Your task to perform on an android device: Search for the best value 4K TV on Best Buy Image 0: 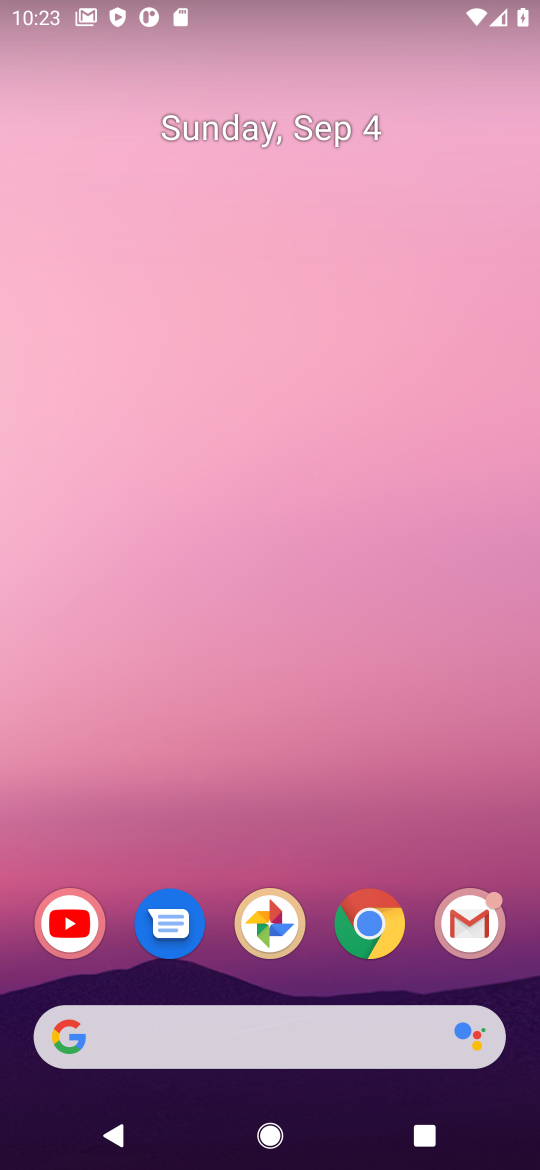
Step 0: click (150, 1017)
Your task to perform on an android device: Search for the best value 4K TV on Best Buy Image 1: 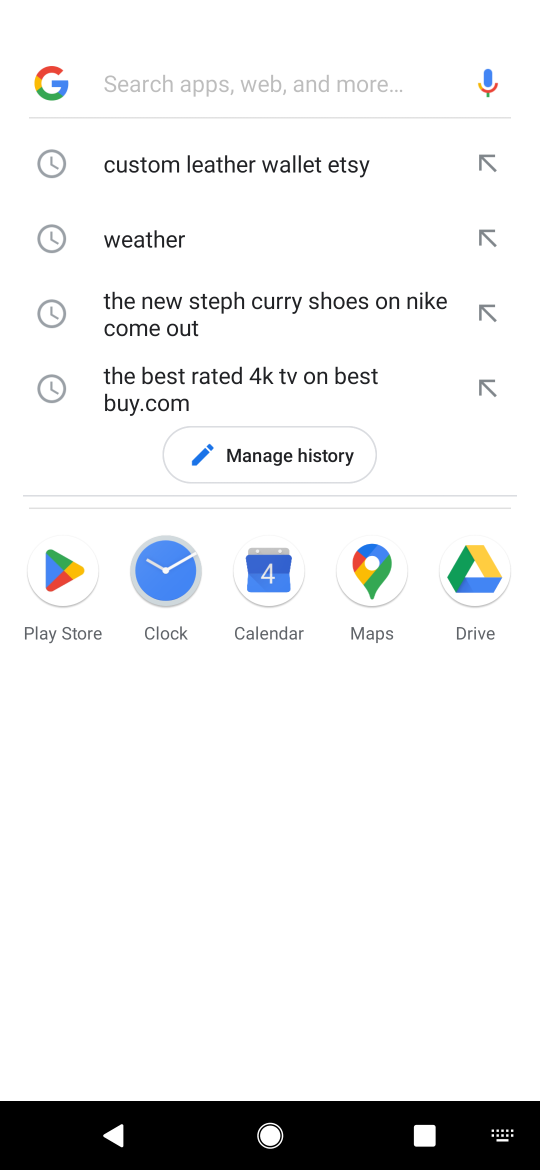
Step 1: type "the best value 4K TV on Best Buy"
Your task to perform on an android device: Search for the best value 4K TV on Best Buy Image 2: 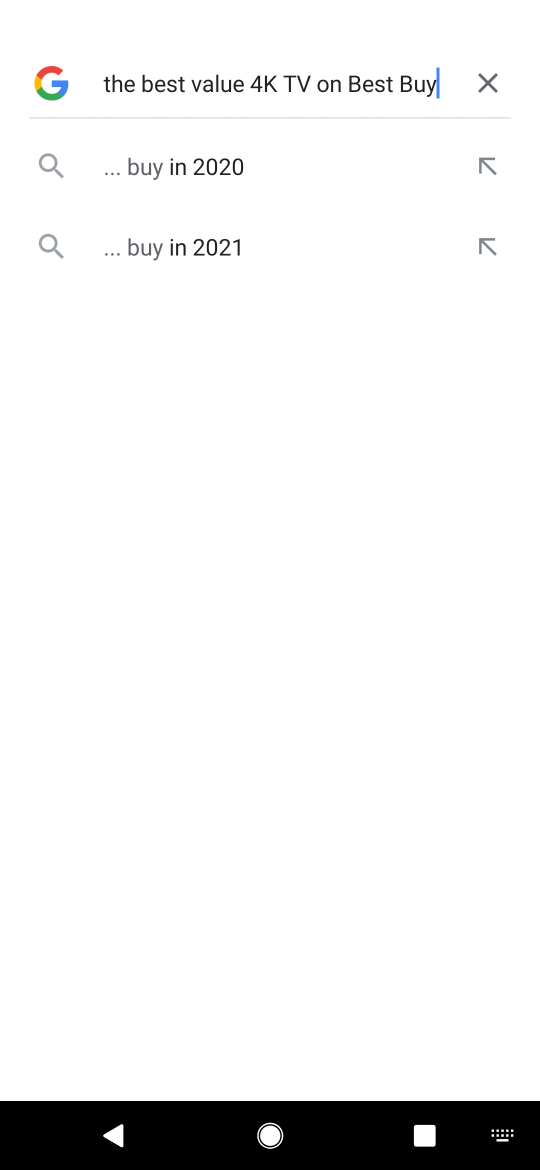
Step 2: type ""
Your task to perform on an android device: Search for the best value 4K TV on Best Buy Image 3: 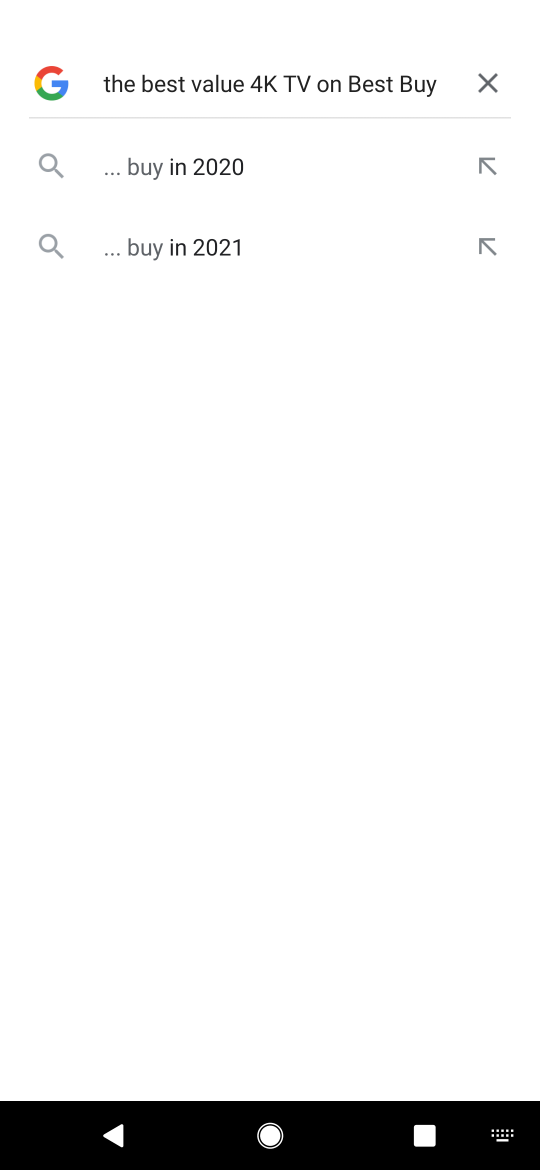
Step 3: type ""
Your task to perform on an android device: Search for the best value 4K TV on Best Buy Image 4: 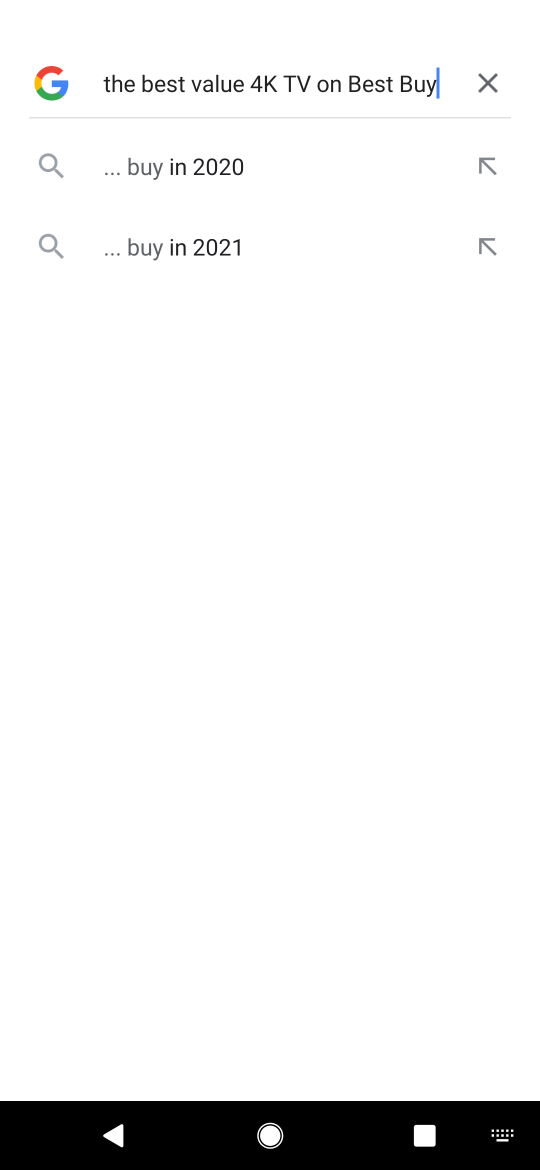
Step 4: type ""
Your task to perform on an android device: Search for the best value 4K TV on Best Buy Image 5: 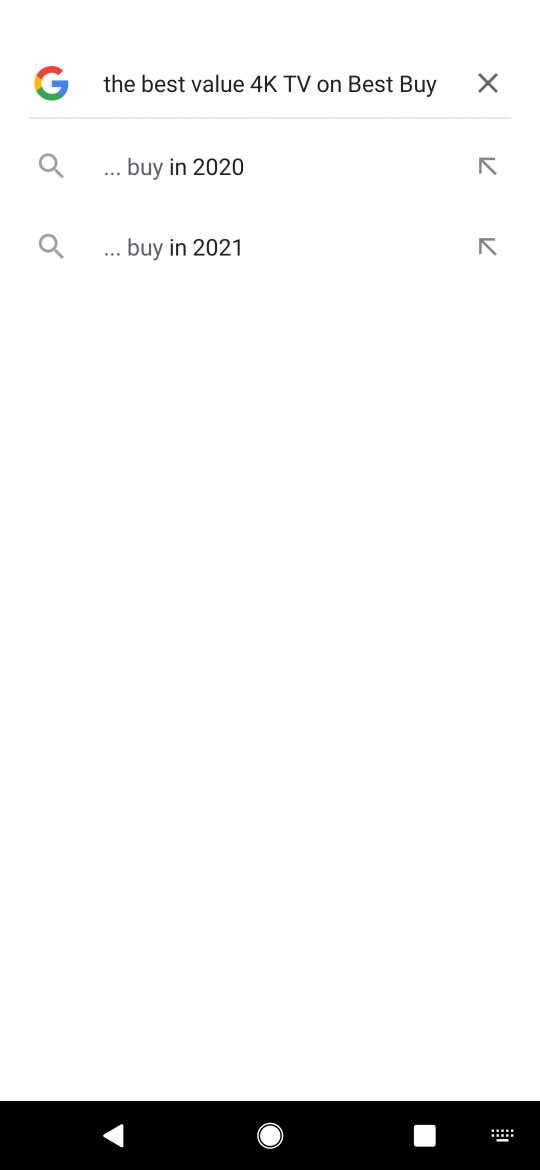
Step 5: task complete